Your task to perform on an android device: Go to calendar. Show me events next week Image 0: 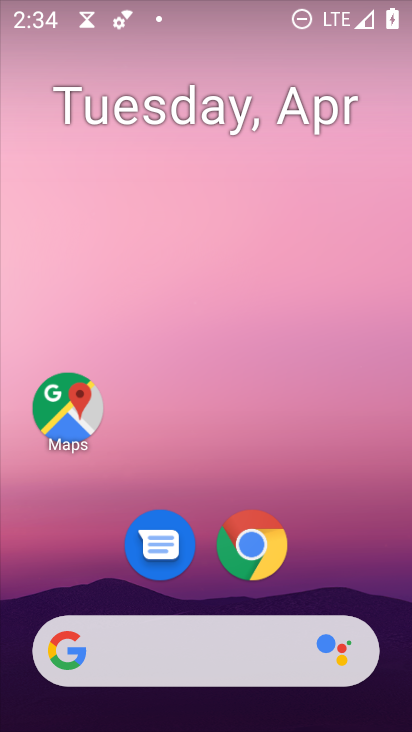
Step 0: drag from (402, 578) to (304, 169)
Your task to perform on an android device: Go to calendar. Show me events next week Image 1: 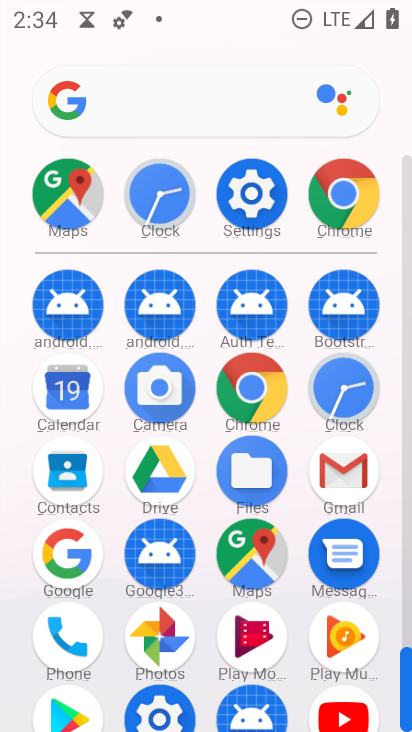
Step 1: click (72, 383)
Your task to perform on an android device: Go to calendar. Show me events next week Image 2: 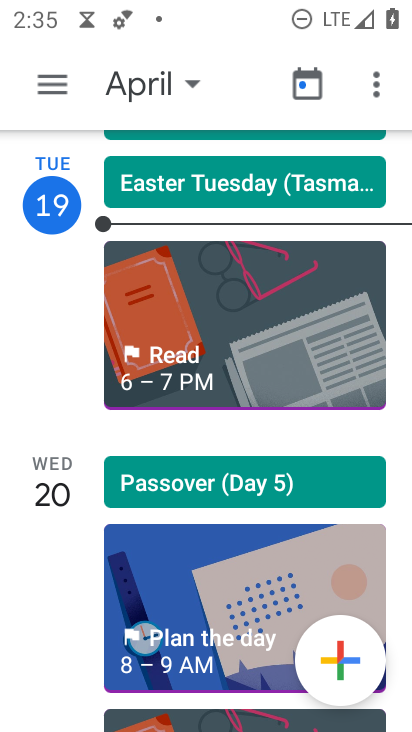
Step 2: click (54, 94)
Your task to perform on an android device: Go to calendar. Show me events next week Image 3: 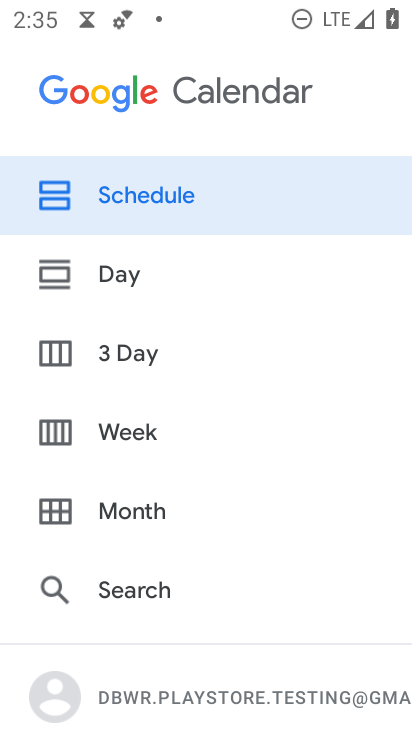
Step 3: click (165, 446)
Your task to perform on an android device: Go to calendar. Show me events next week Image 4: 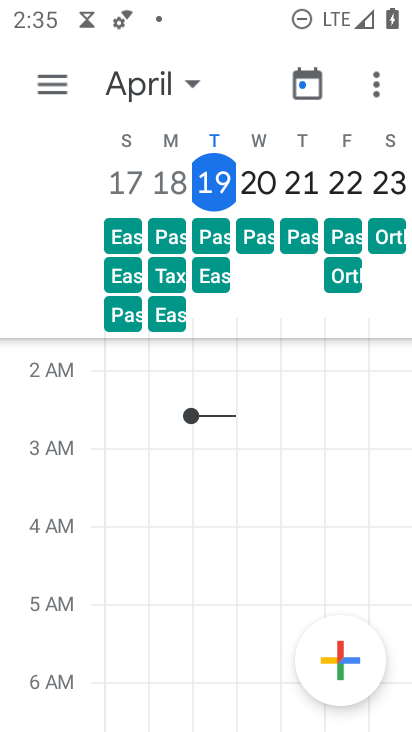
Step 4: click (189, 80)
Your task to perform on an android device: Go to calendar. Show me events next week Image 5: 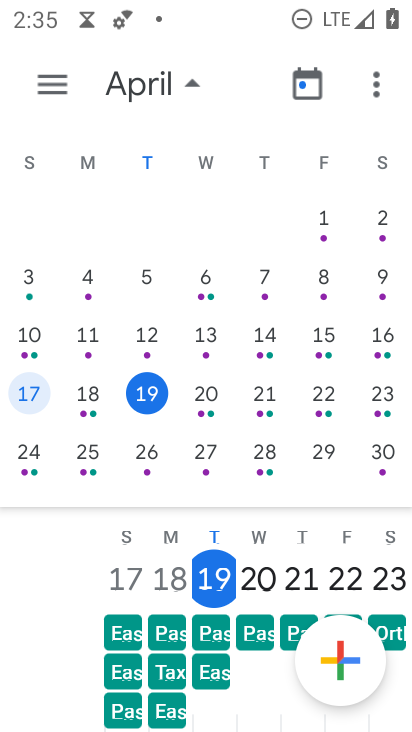
Step 5: click (276, 460)
Your task to perform on an android device: Go to calendar. Show me events next week Image 6: 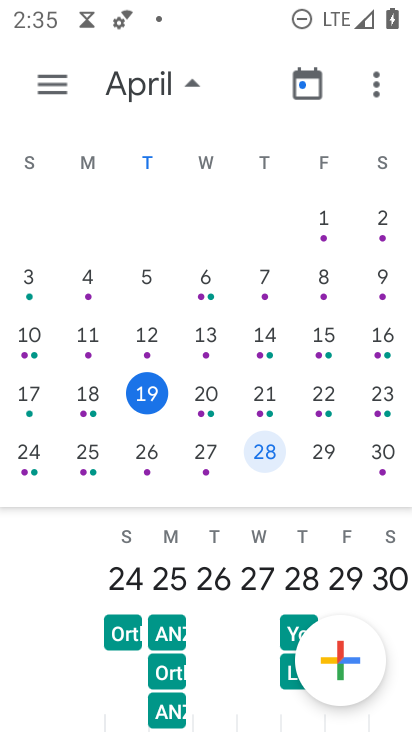
Step 6: task complete